Your task to perform on an android device: open wifi settings Image 0: 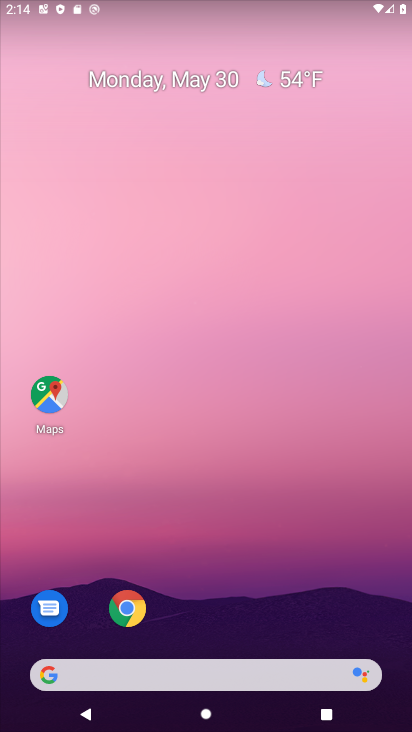
Step 0: drag from (303, 508) to (30, 13)
Your task to perform on an android device: open wifi settings Image 1: 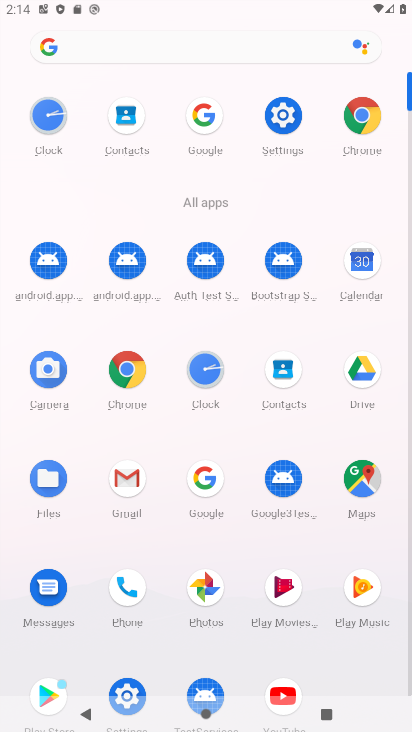
Step 1: click (300, 100)
Your task to perform on an android device: open wifi settings Image 2: 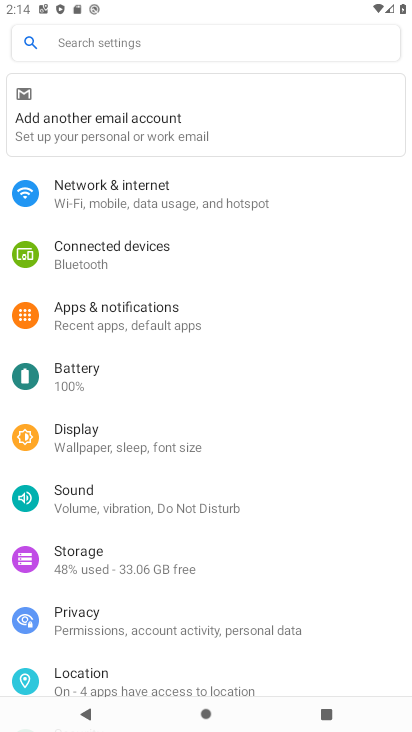
Step 2: click (186, 188)
Your task to perform on an android device: open wifi settings Image 3: 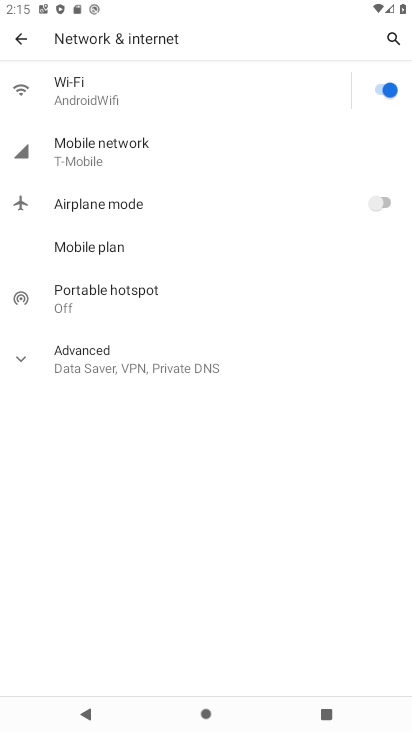
Step 3: click (164, 92)
Your task to perform on an android device: open wifi settings Image 4: 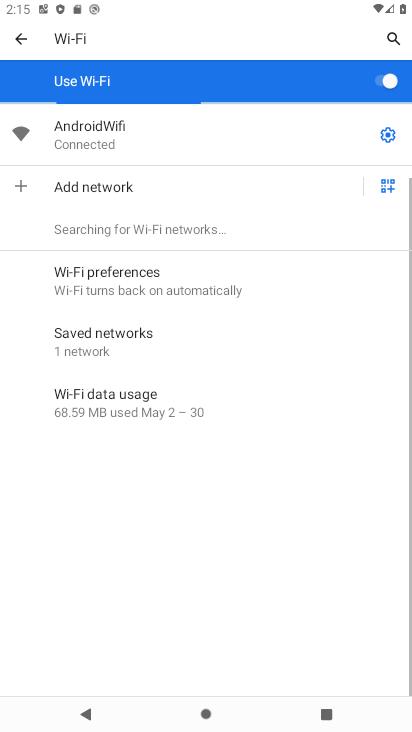
Step 4: task complete